Your task to perform on an android device: check battery use Image 0: 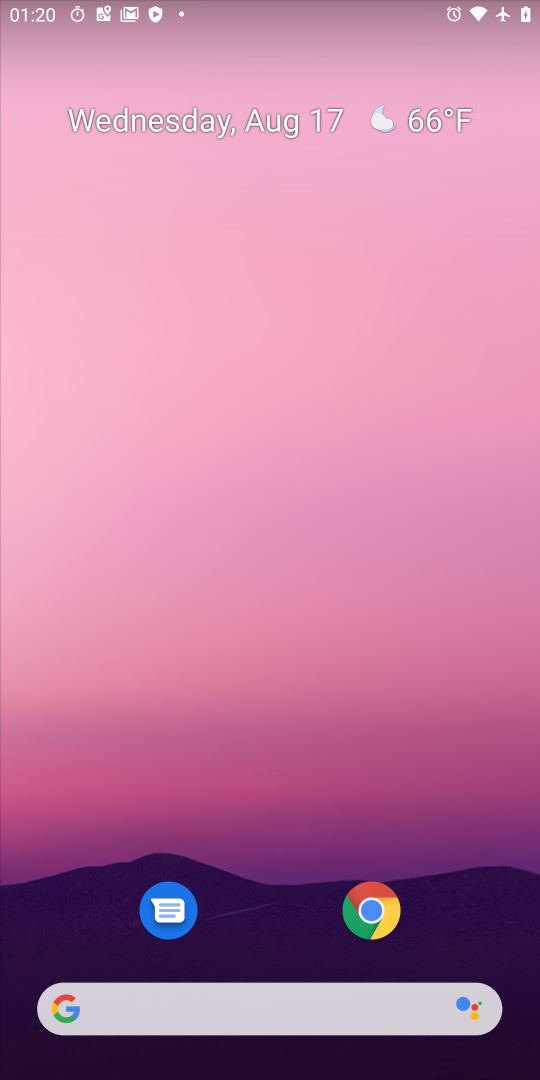
Step 0: drag from (249, 921) to (283, 151)
Your task to perform on an android device: check battery use Image 1: 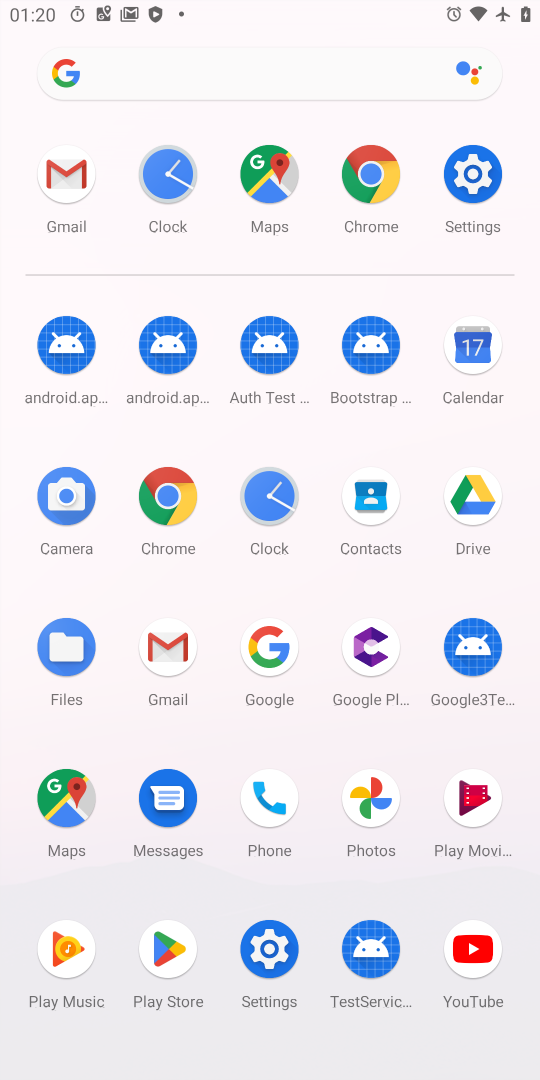
Step 1: click (247, 948)
Your task to perform on an android device: check battery use Image 2: 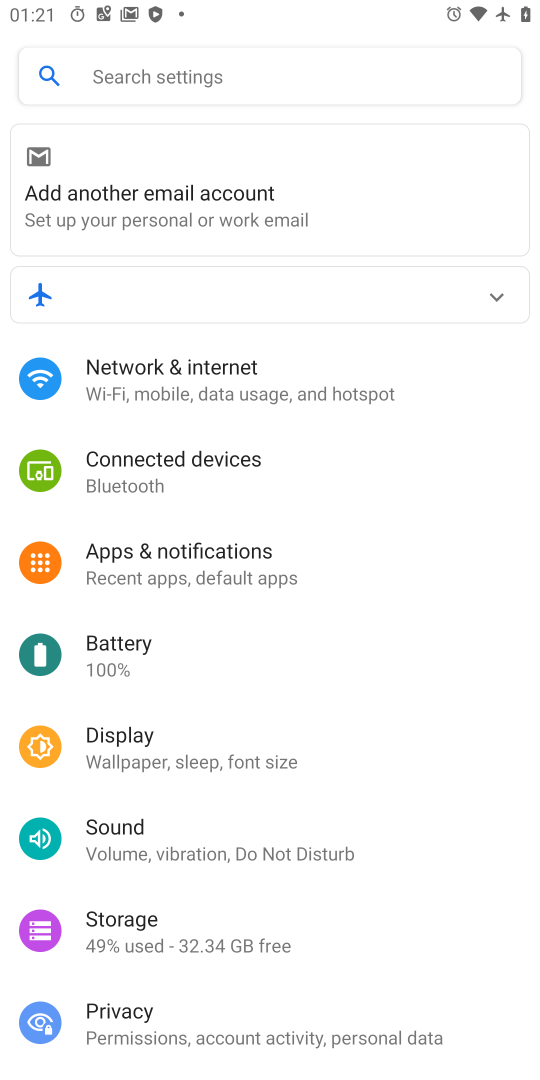
Step 2: click (143, 661)
Your task to perform on an android device: check battery use Image 3: 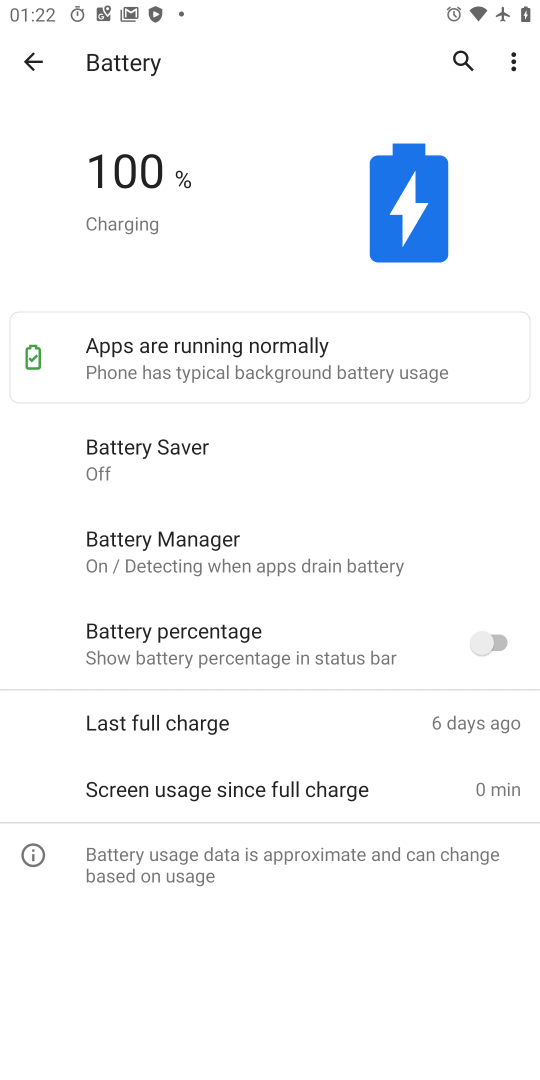
Step 3: click (511, 58)
Your task to perform on an android device: check battery use Image 4: 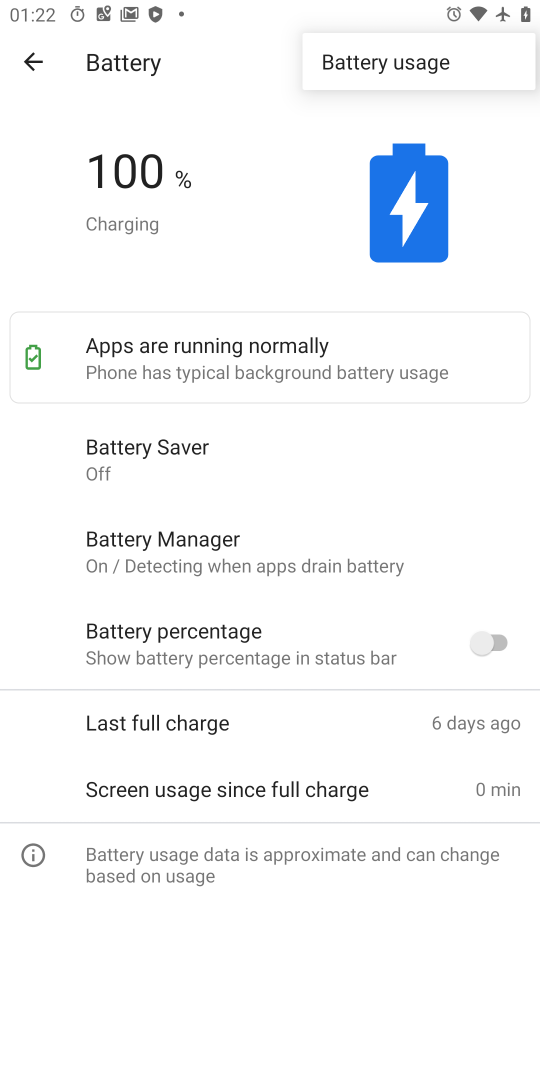
Step 4: click (416, 52)
Your task to perform on an android device: check battery use Image 5: 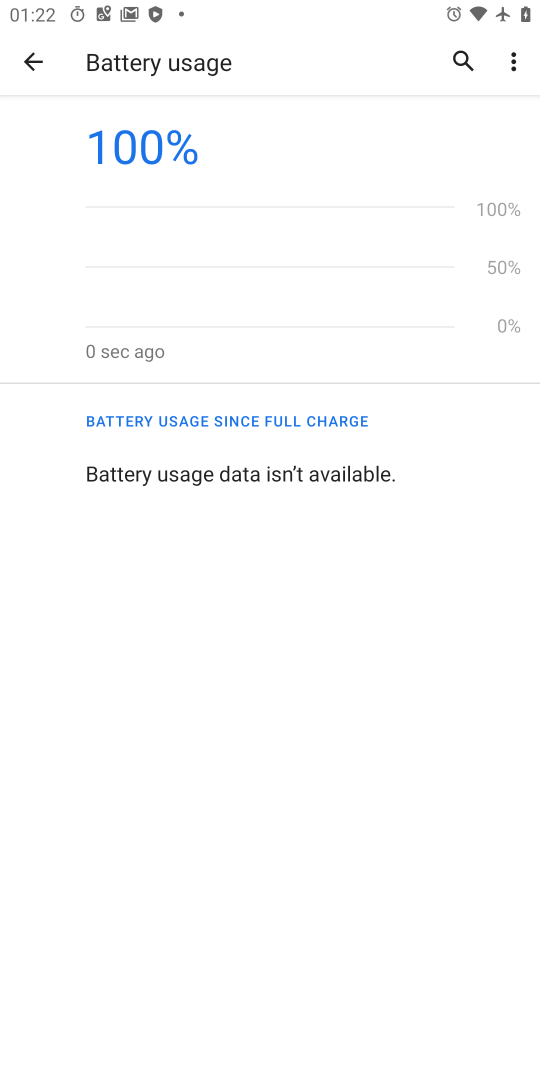
Step 5: task complete